Your task to perform on an android device: Open the phone app and click the voicemail tab. Image 0: 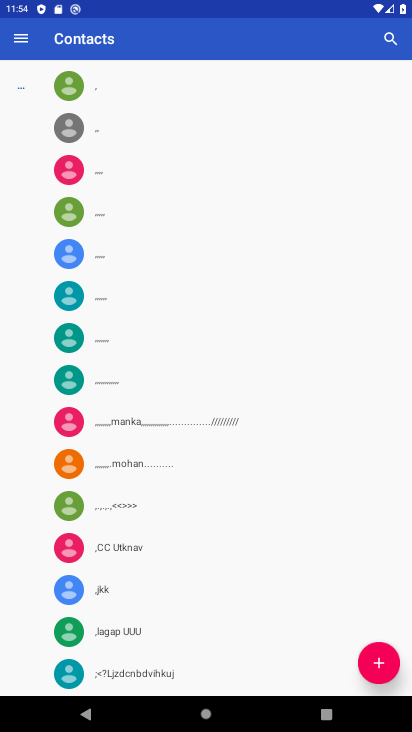
Step 0: press home button
Your task to perform on an android device: Open the phone app and click the voicemail tab. Image 1: 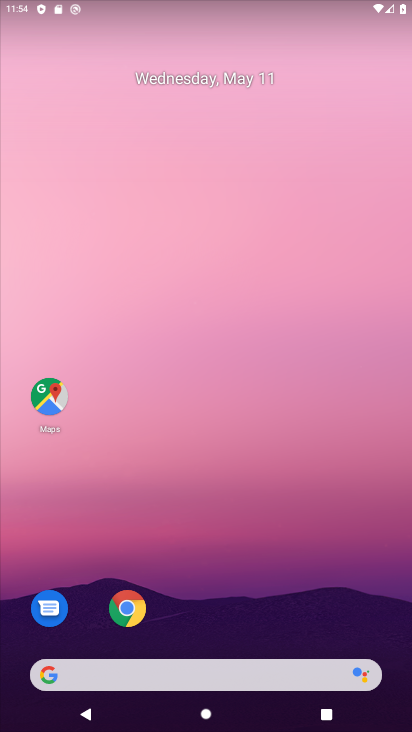
Step 1: drag from (325, 584) to (340, 109)
Your task to perform on an android device: Open the phone app and click the voicemail tab. Image 2: 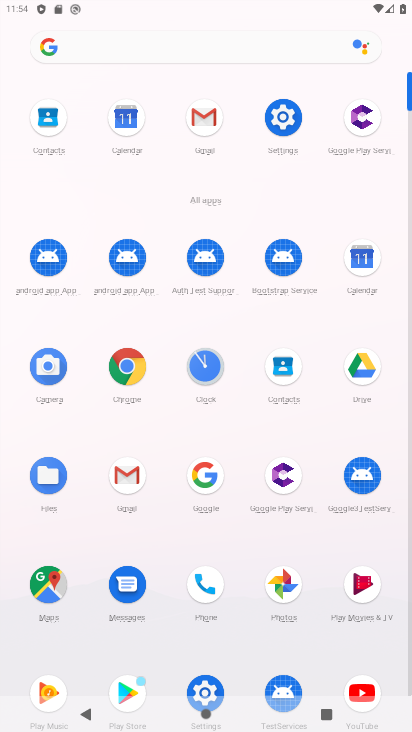
Step 2: click (197, 588)
Your task to perform on an android device: Open the phone app and click the voicemail tab. Image 3: 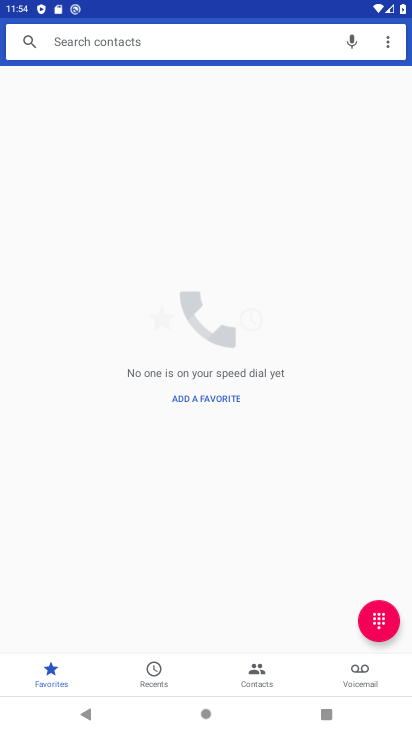
Step 3: click (364, 666)
Your task to perform on an android device: Open the phone app and click the voicemail tab. Image 4: 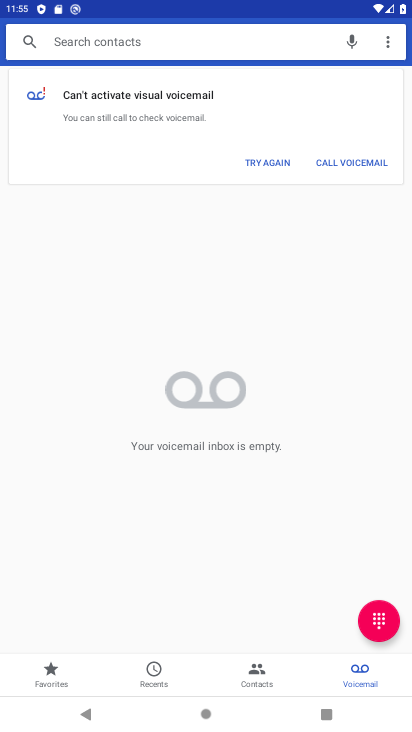
Step 4: task complete